Your task to perform on an android device: Open eBay Image 0: 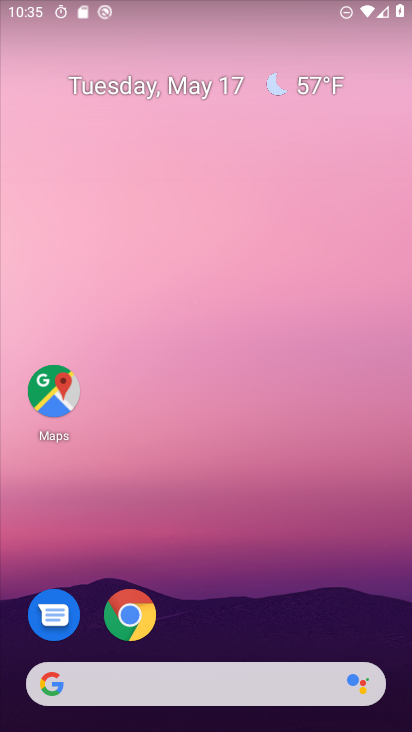
Step 0: click (134, 625)
Your task to perform on an android device: Open eBay Image 1: 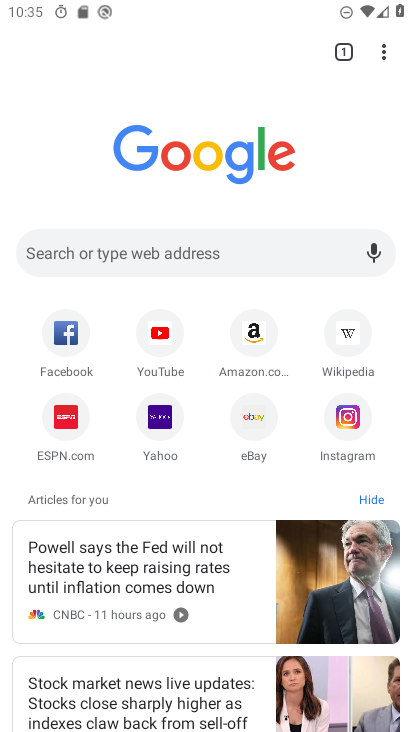
Step 1: click (257, 419)
Your task to perform on an android device: Open eBay Image 2: 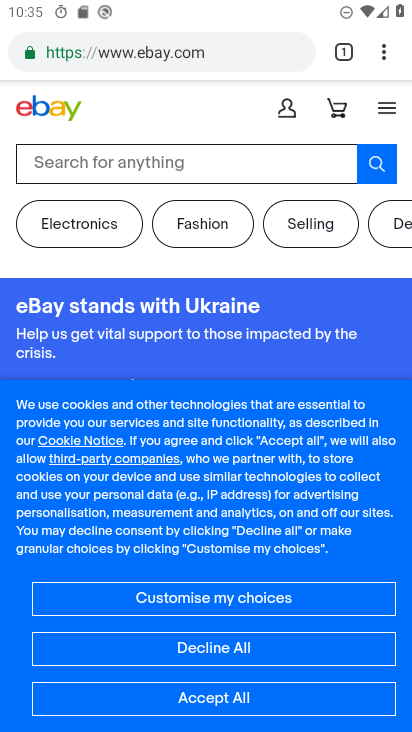
Step 2: task complete